Your task to perform on an android device: open app "McDonald's" (install if not already installed) and go to login screen Image 0: 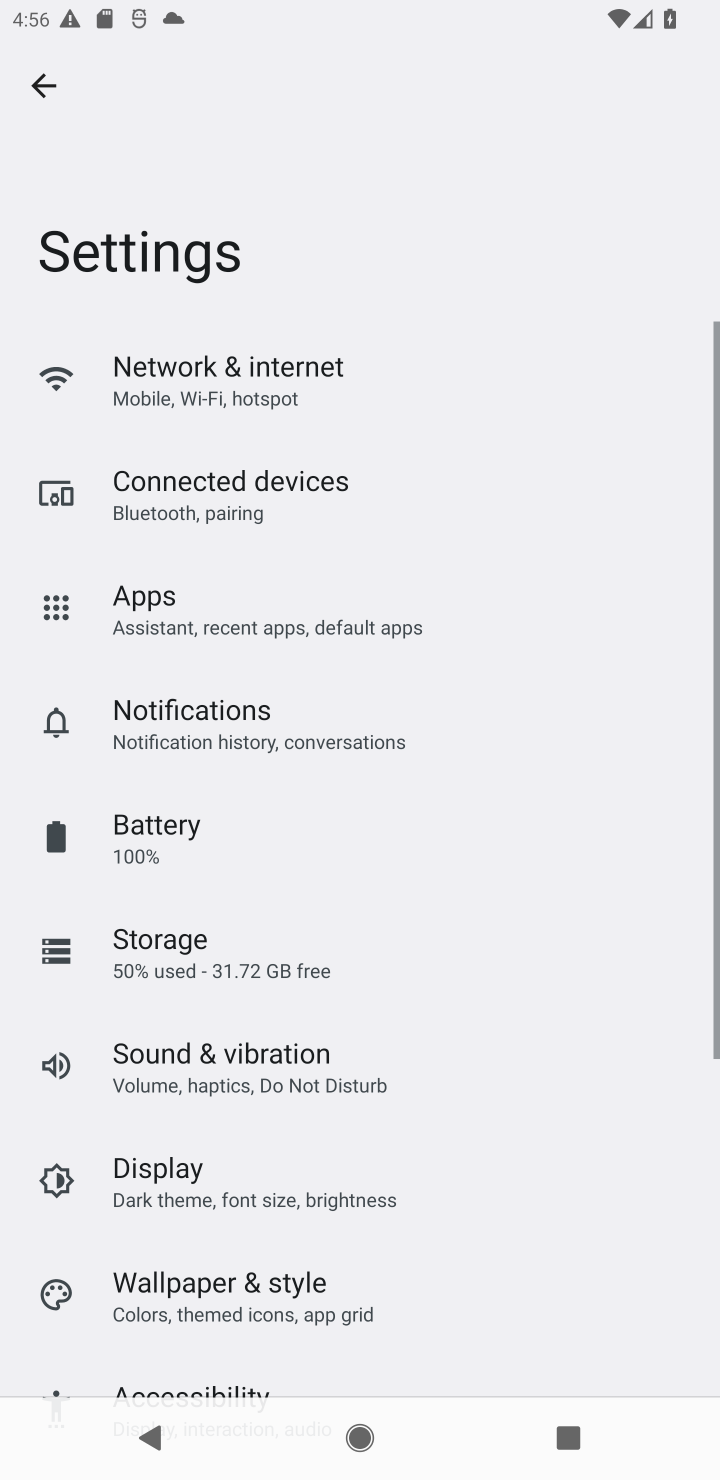
Step 0: press home button
Your task to perform on an android device: open app "McDonald's" (install if not already installed) and go to login screen Image 1: 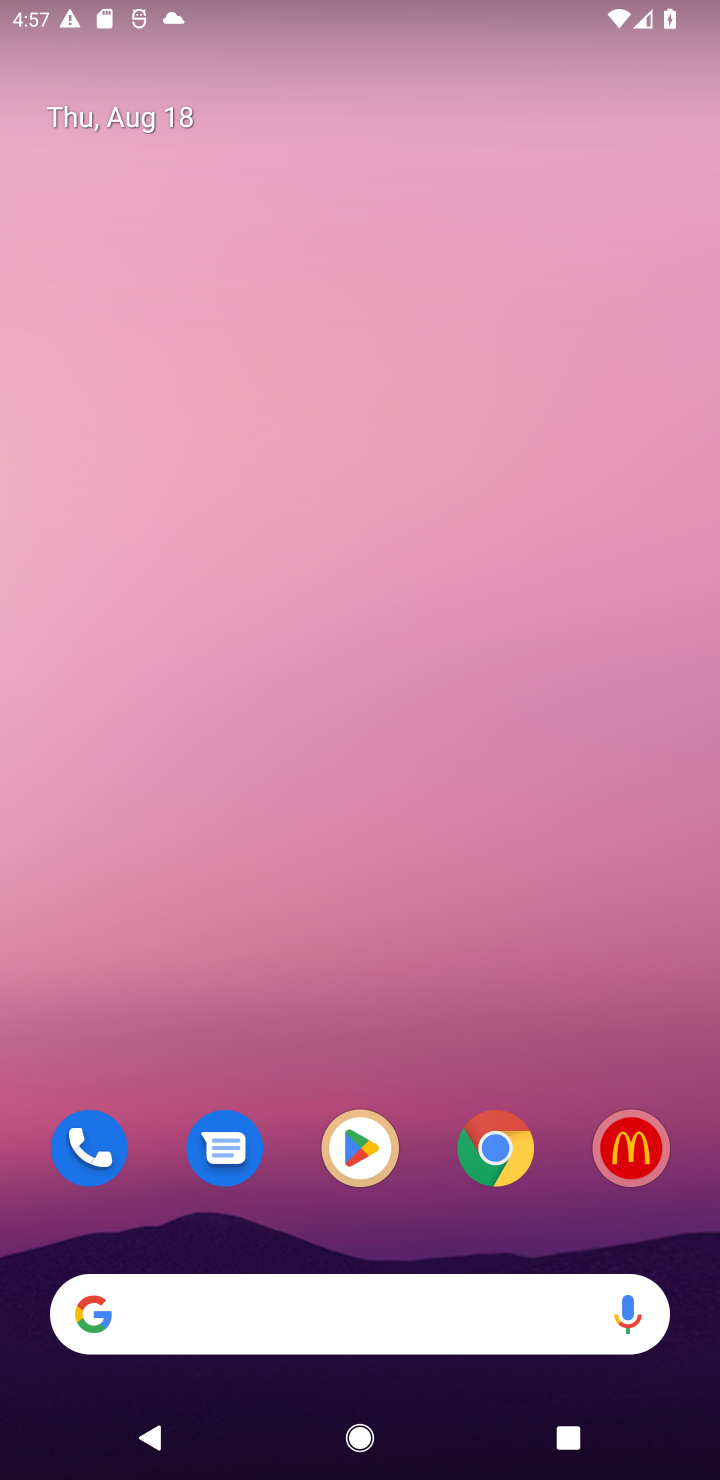
Step 1: drag from (340, 1438) to (176, 90)
Your task to perform on an android device: open app "McDonald's" (install if not already installed) and go to login screen Image 2: 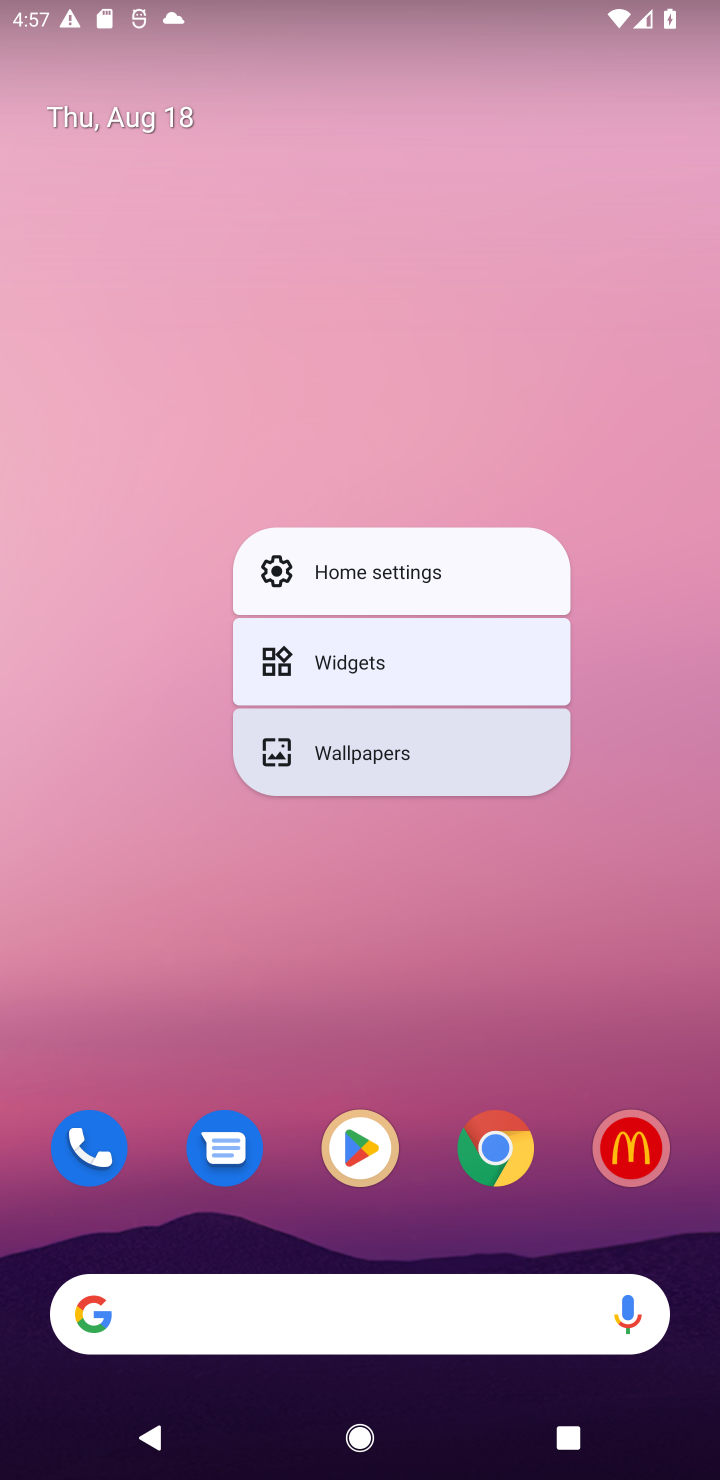
Step 2: click (391, 863)
Your task to perform on an android device: open app "McDonald's" (install if not already installed) and go to login screen Image 3: 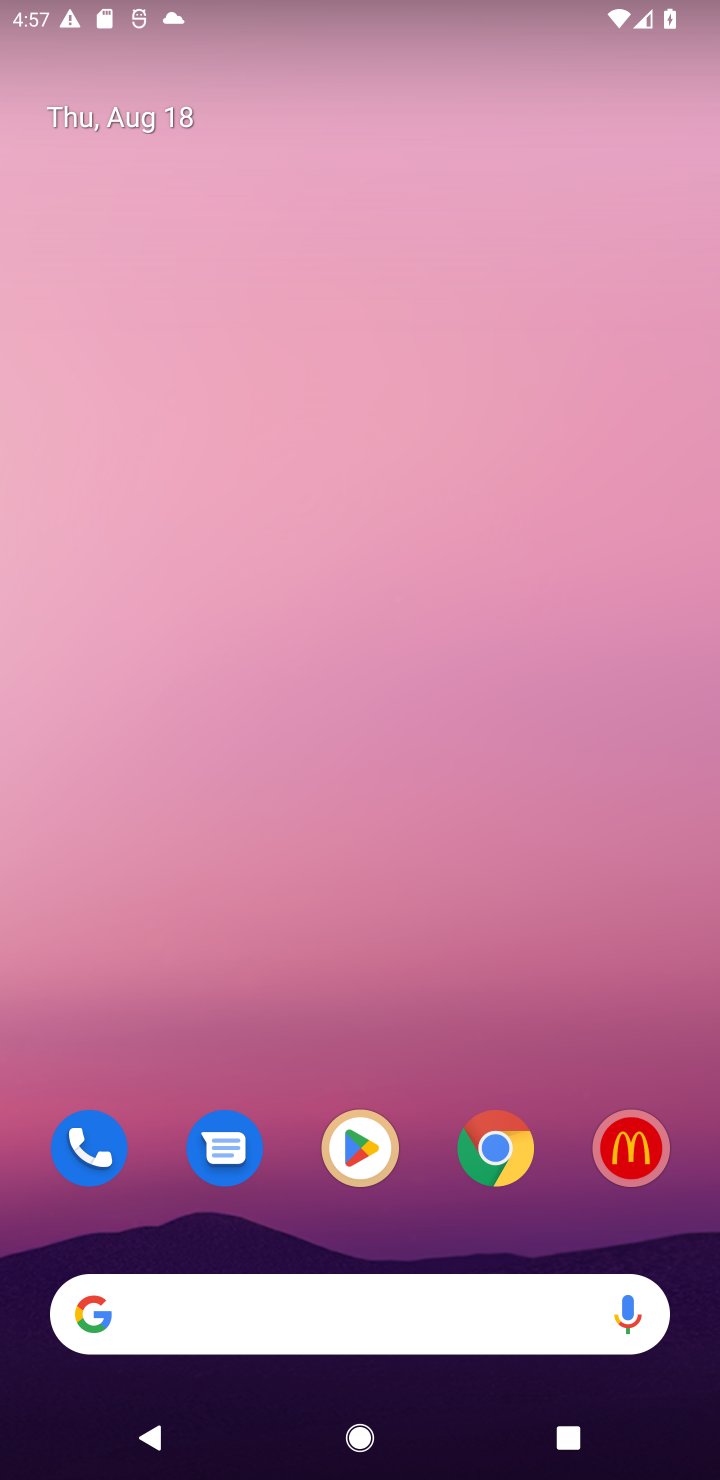
Step 3: drag from (438, 1235) to (269, 42)
Your task to perform on an android device: open app "McDonald's" (install if not already installed) and go to login screen Image 4: 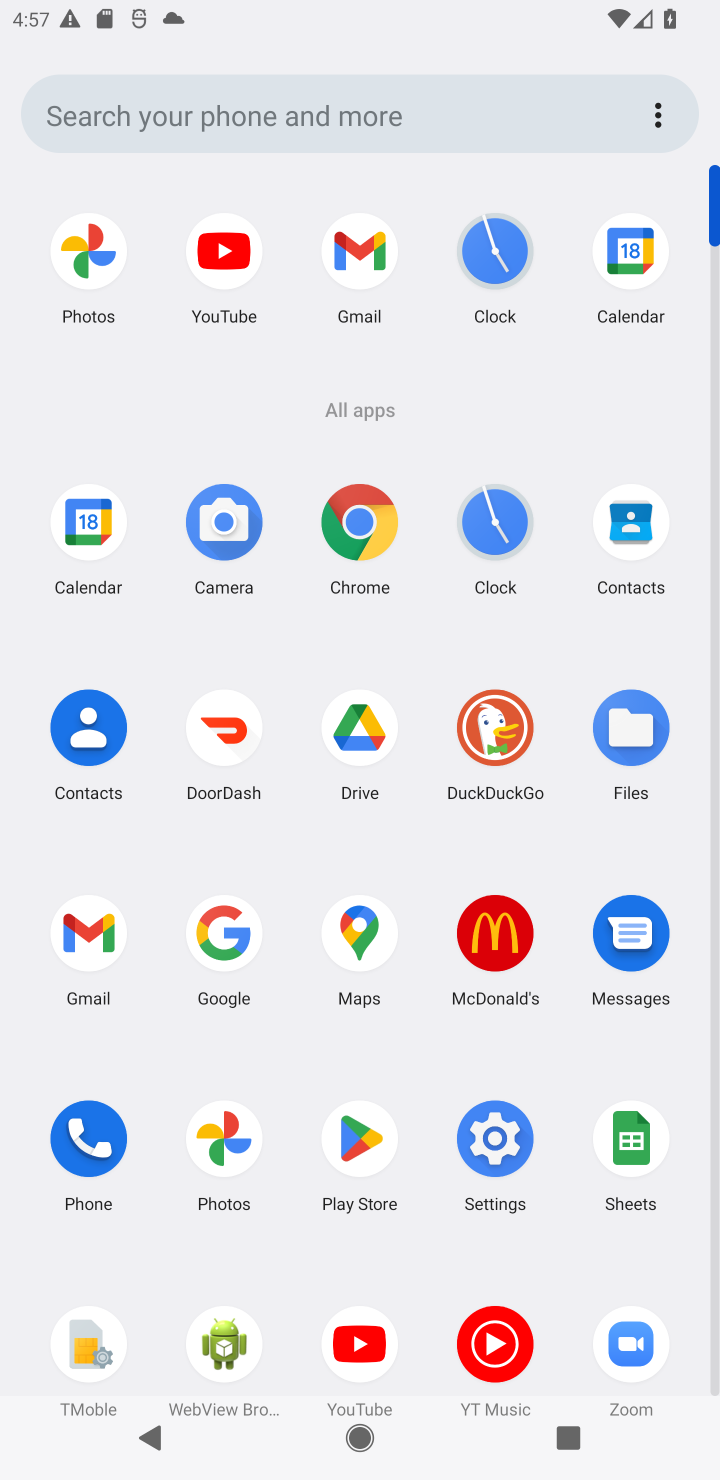
Step 4: click (382, 1142)
Your task to perform on an android device: open app "McDonald's" (install if not already installed) and go to login screen Image 5: 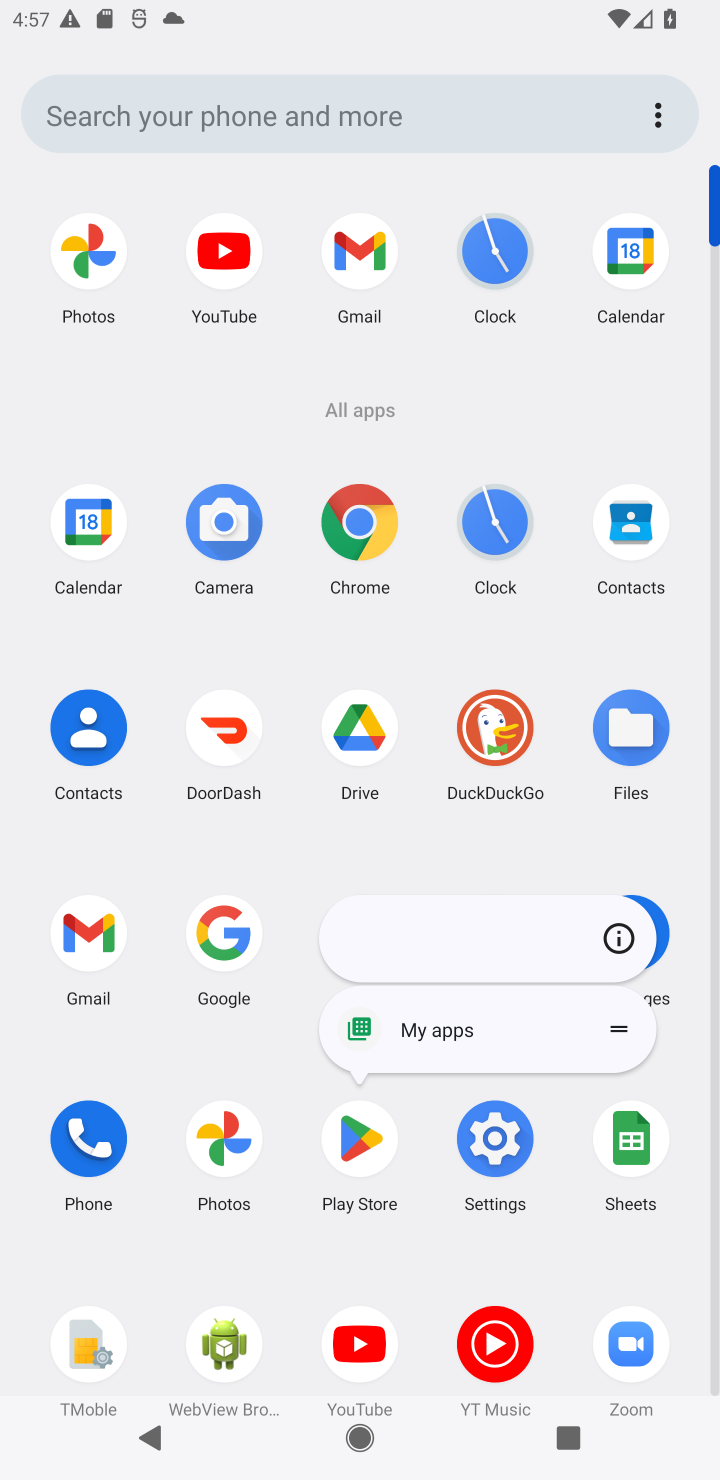
Step 5: click (338, 1162)
Your task to perform on an android device: open app "McDonald's" (install if not already installed) and go to login screen Image 6: 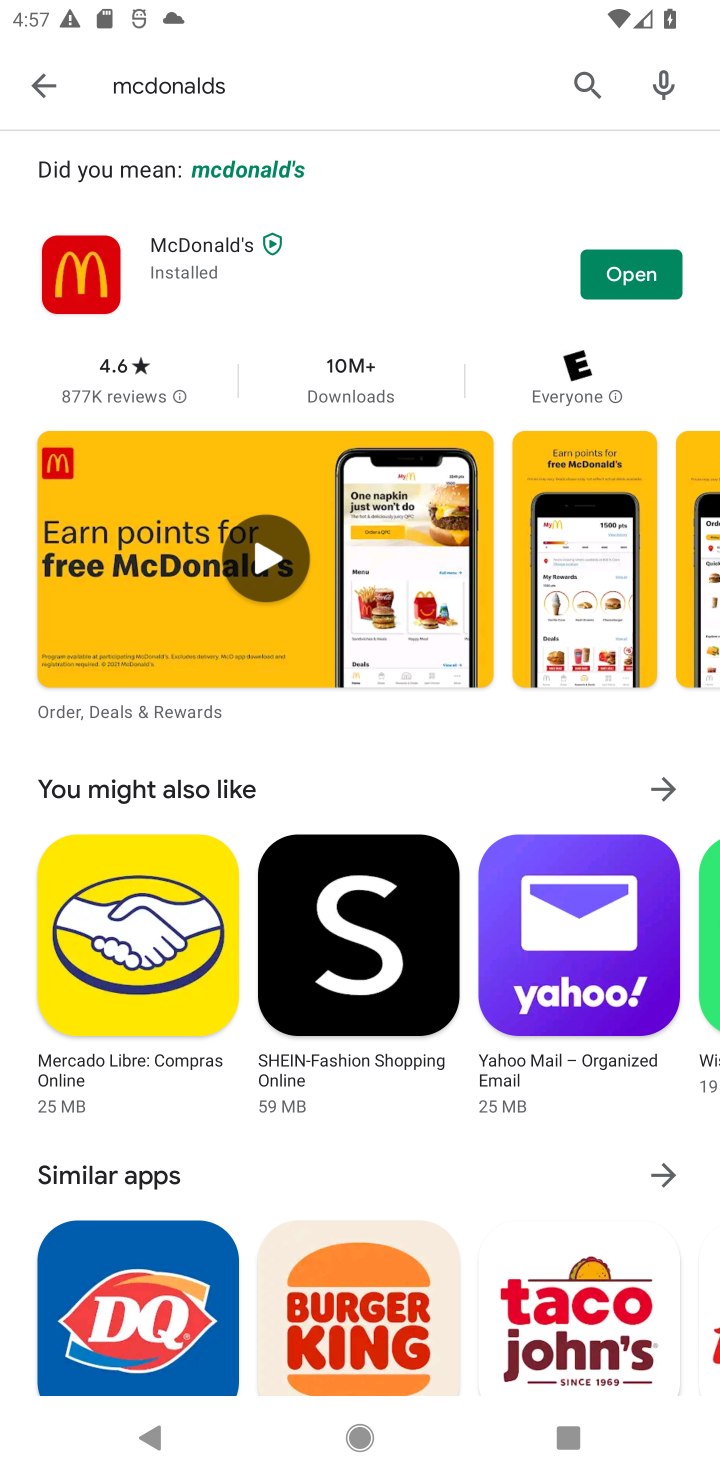
Step 6: click (34, 83)
Your task to perform on an android device: open app "McDonald's" (install if not already installed) and go to login screen Image 7: 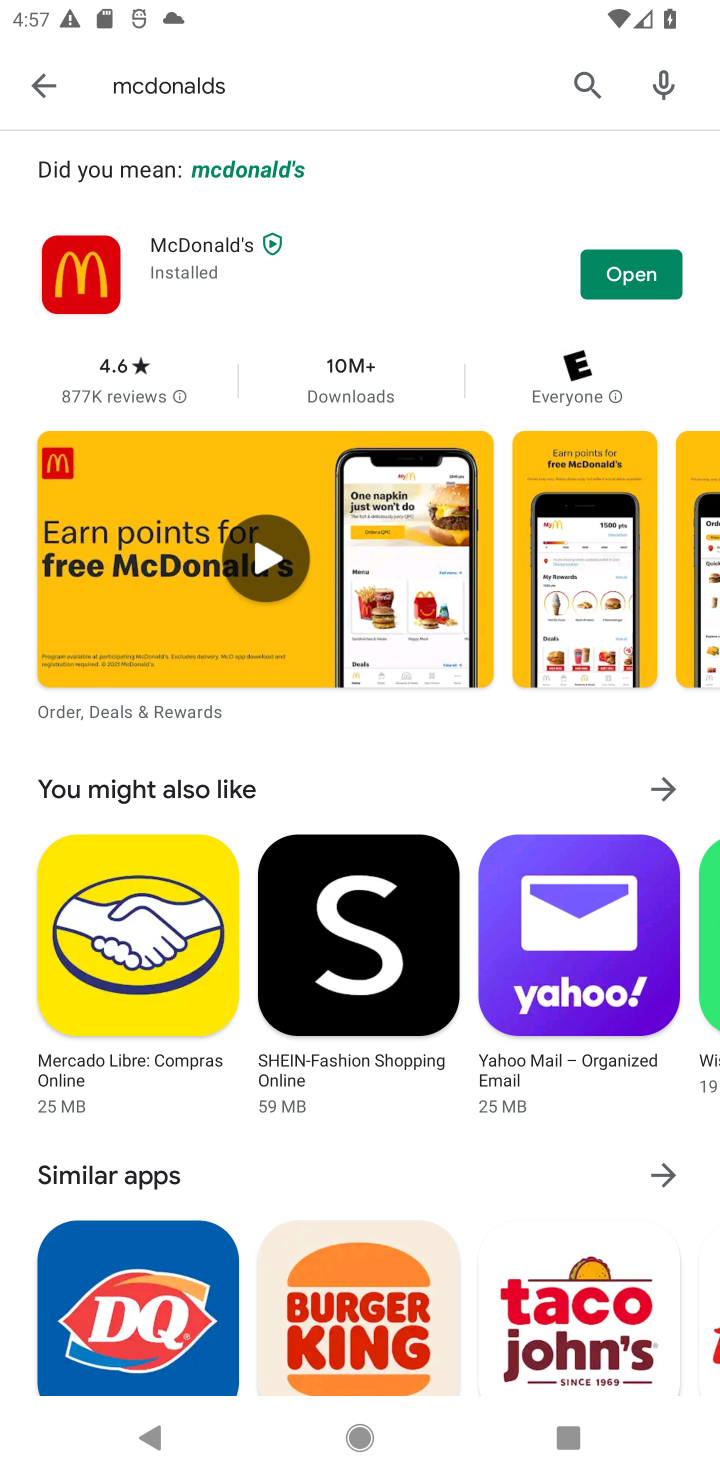
Step 7: click (36, 104)
Your task to perform on an android device: open app "McDonald's" (install if not already installed) and go to login screen Image 8: 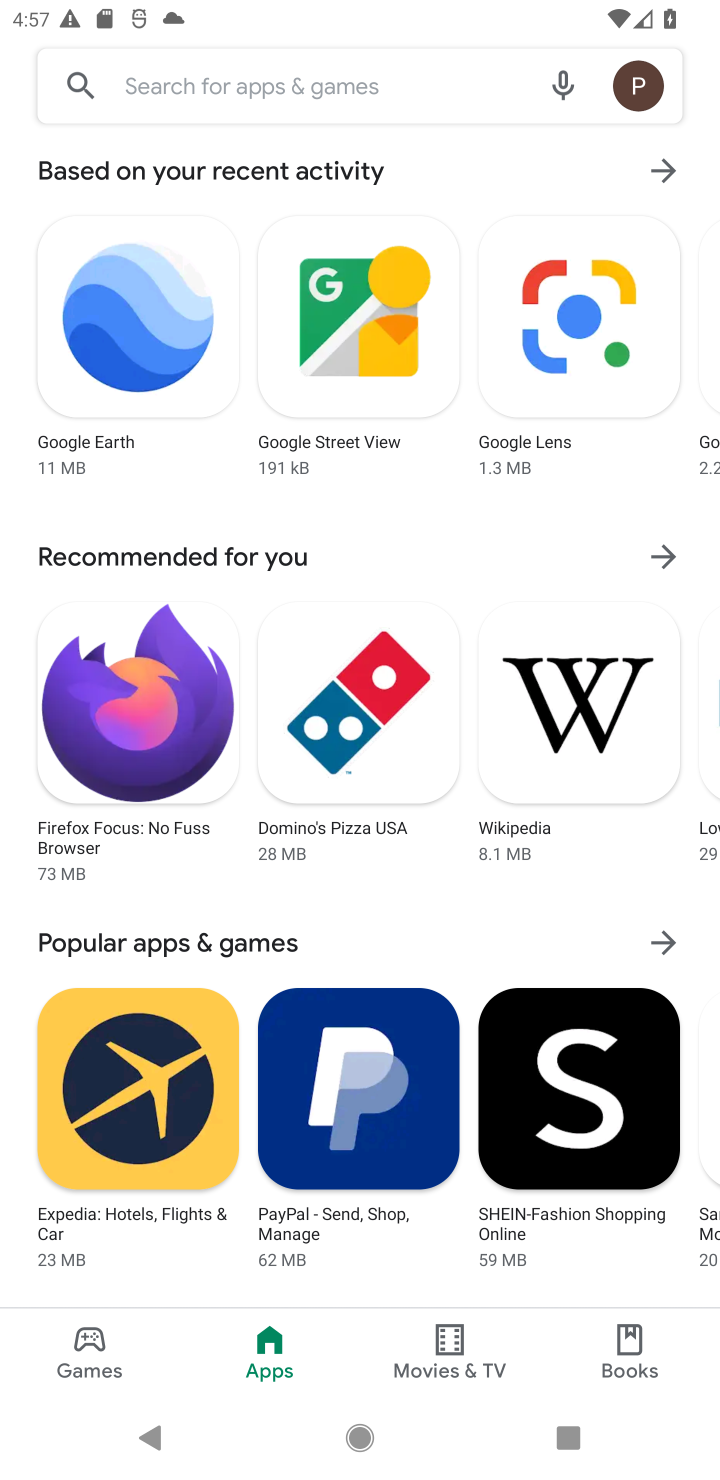
Step 8: press back button
Your task to perform on an android device: open app "McDonald's" (install if not already installed) and go to login screen Image 9: 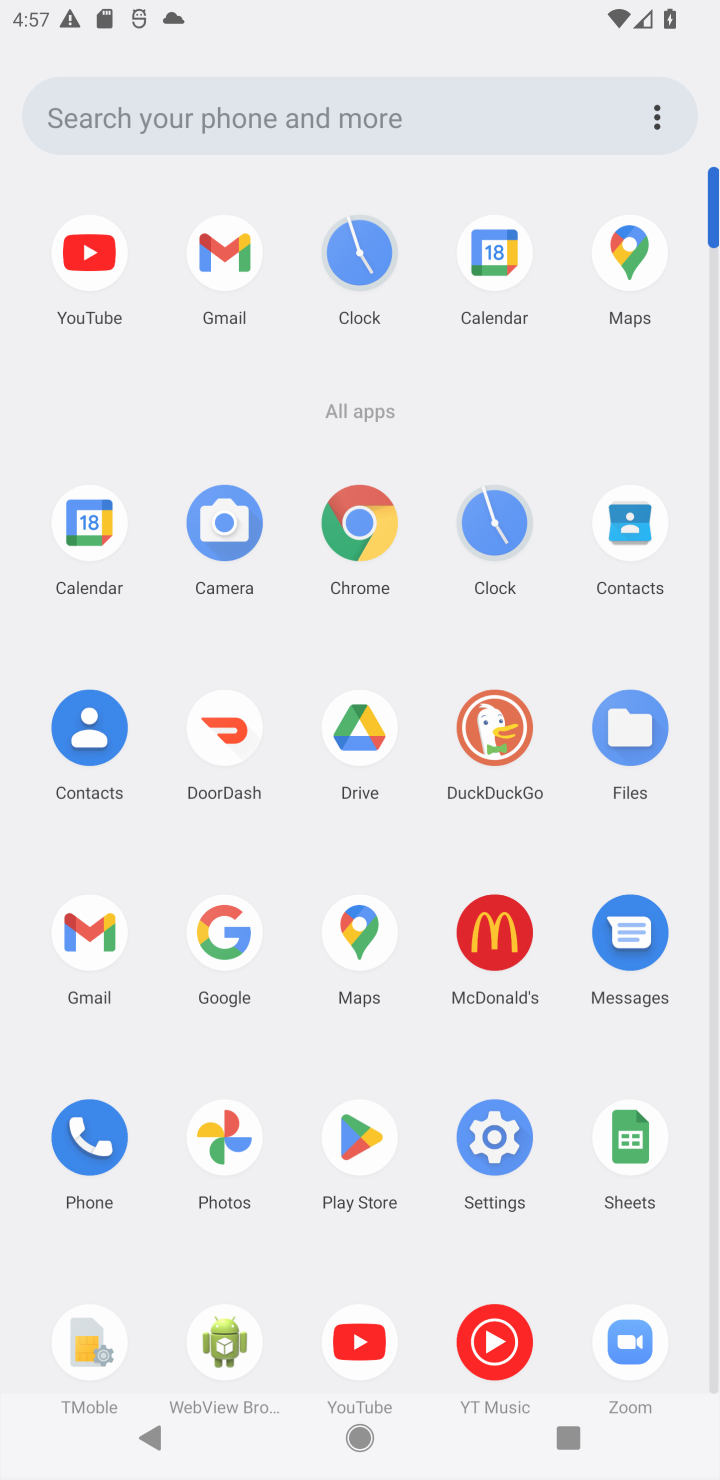
Step 9: click (173, 92)
Your task to perform on an android device: open app "McDonald's" (install if not already installed) and go to login screen Image 10: 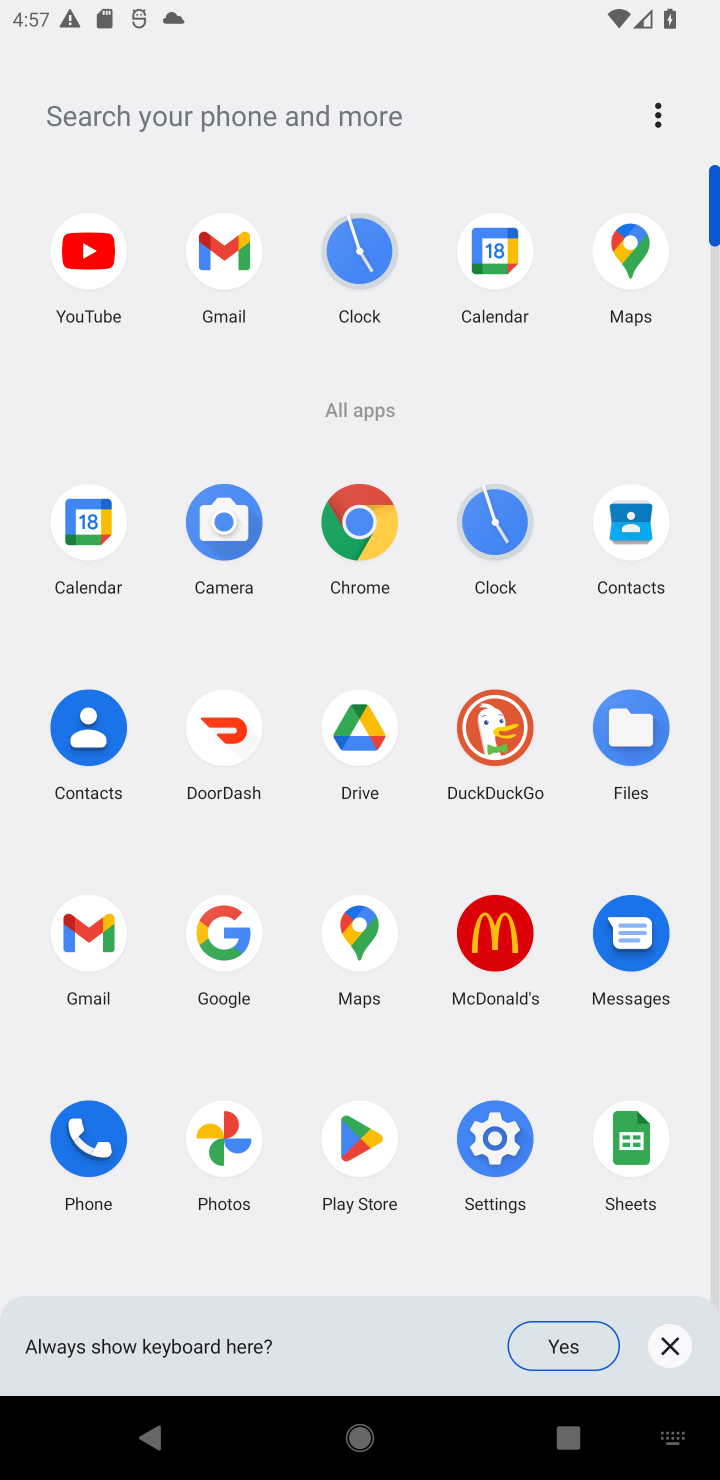
Step 10: click (366, 1141)
Your task to perform on an android device: open app "McDonald's" (install if not already installed) and go to login screen Image 11: 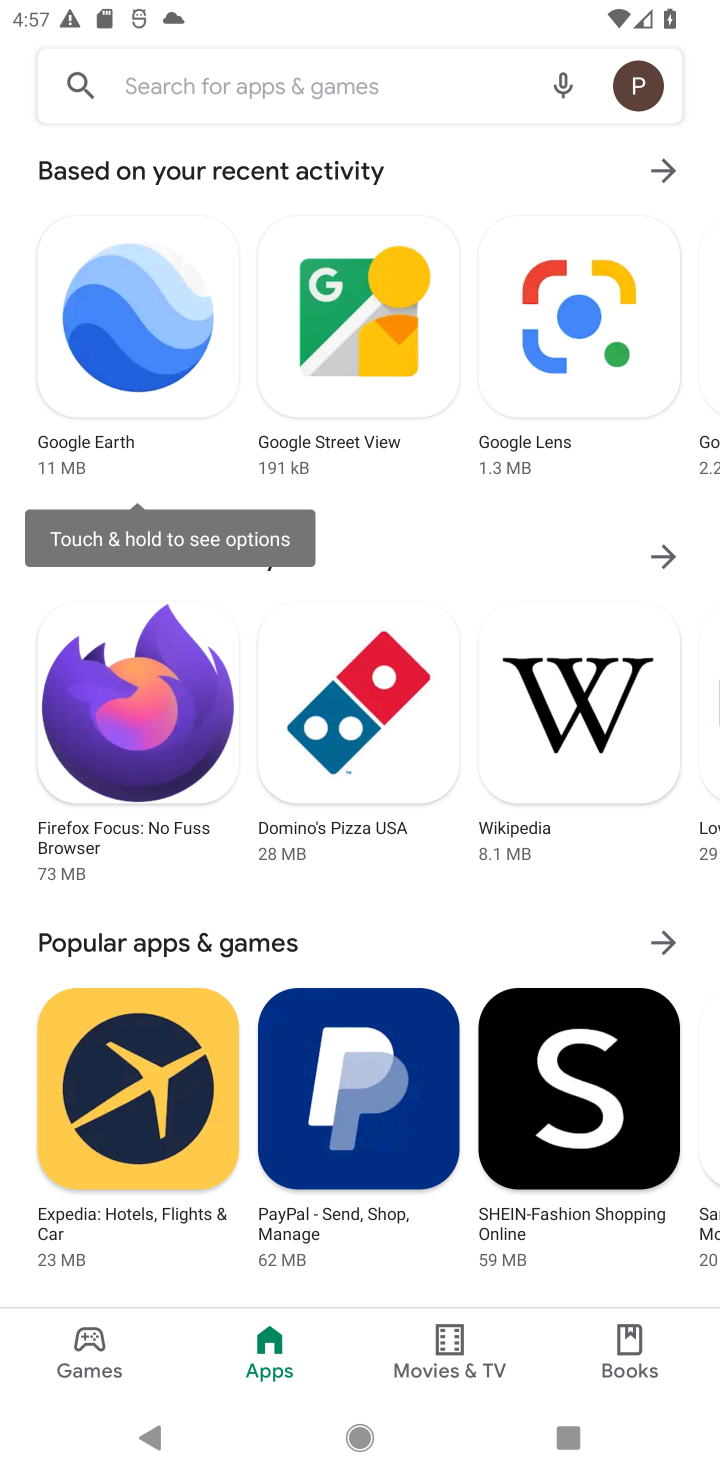
Step 11: click (150, 86)
Your task to perform on an android device: open app "McDonald's" (install if not already installed) and go to login screen Image 12: 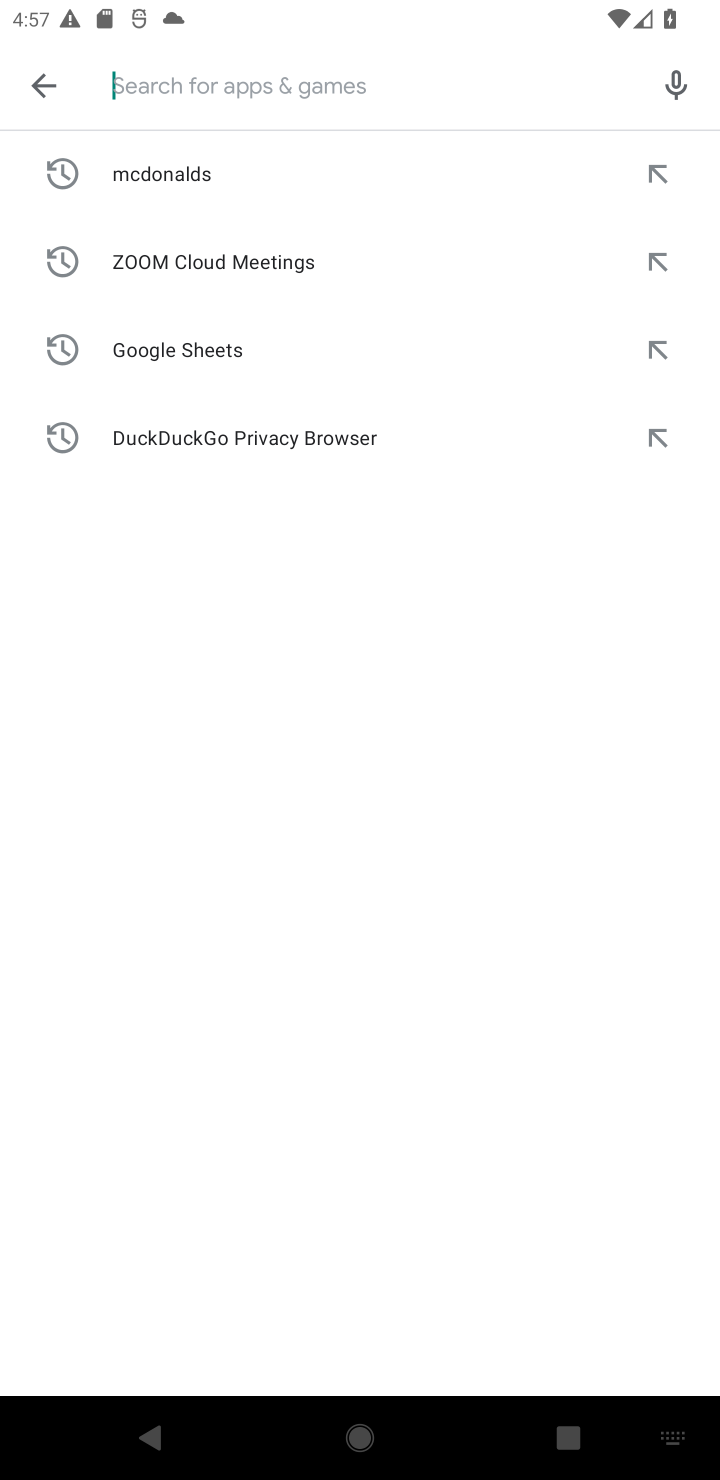
Step 12: click (123, 183)
Your task to perform on an android device: open app "McDonald's" (install if not already installed) and go to login screen Image 13: 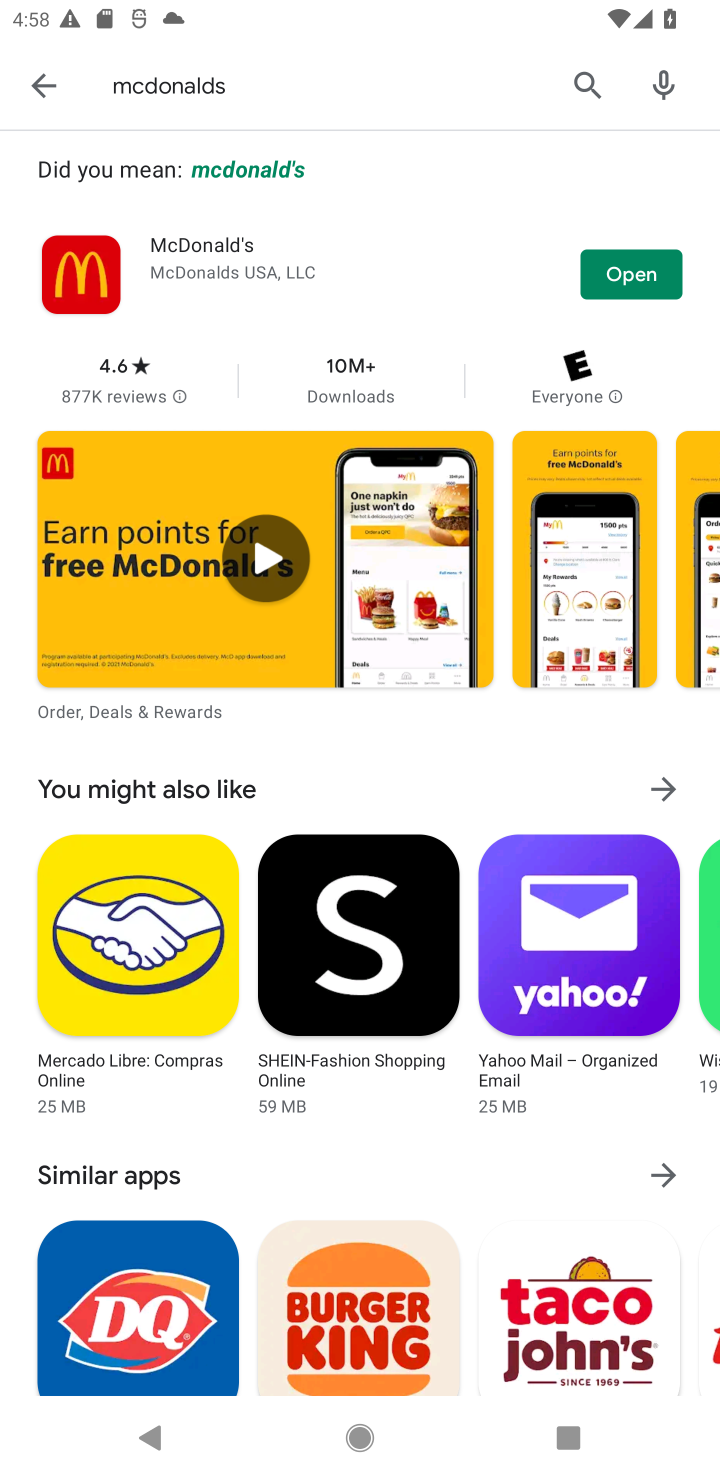
Step 13: click (638, 278)
Your task to perform on an android device: open app "McDonald's" (install if not already installed) and go to login screen Image 14: 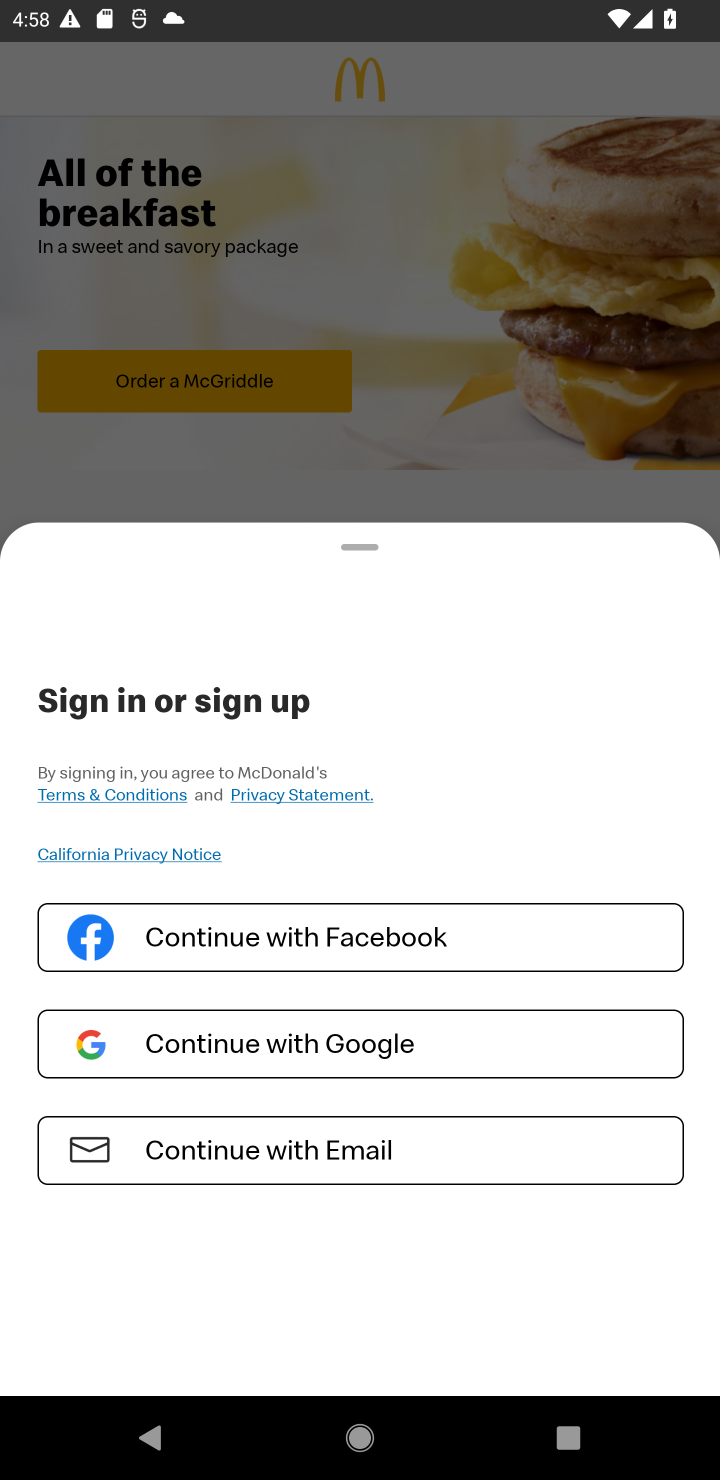
Step 14: task complete